Your task to perform on an android device: Do I have any events tomorrow? Image 0: 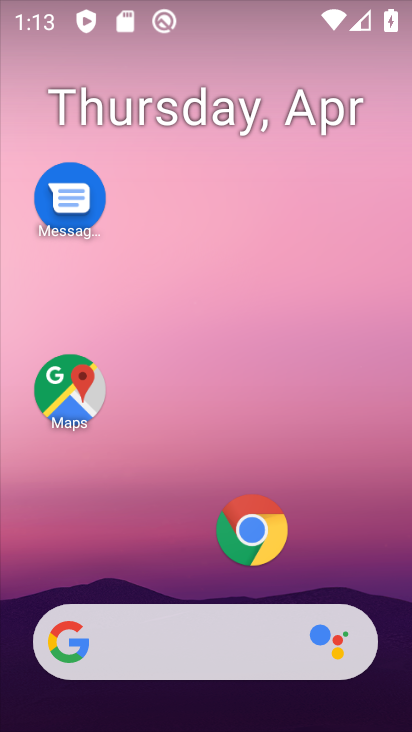
Step 0: drag from (178, 578) to (146, 16)
Your task to perform on an android device: Do I have any events tomorrow? Image 1: 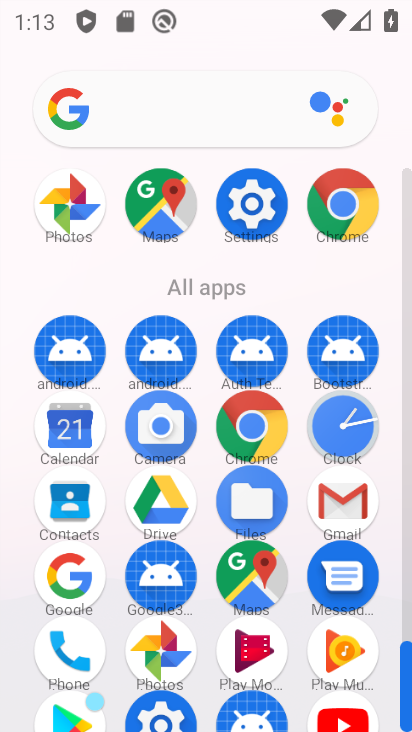
Step 1: click (88, 439)
Your task to perform on an android device: Do I have any events tomorrow? Image 2: 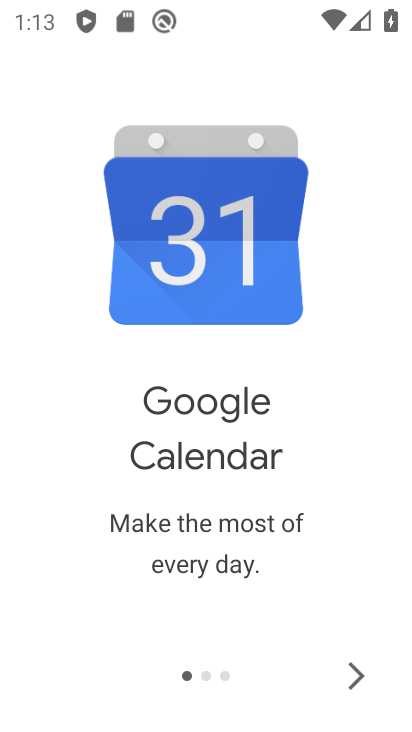
Step 2: click (356, 671)
Your task to perform on an android device: Do I have any events tomorrow? Image 3: 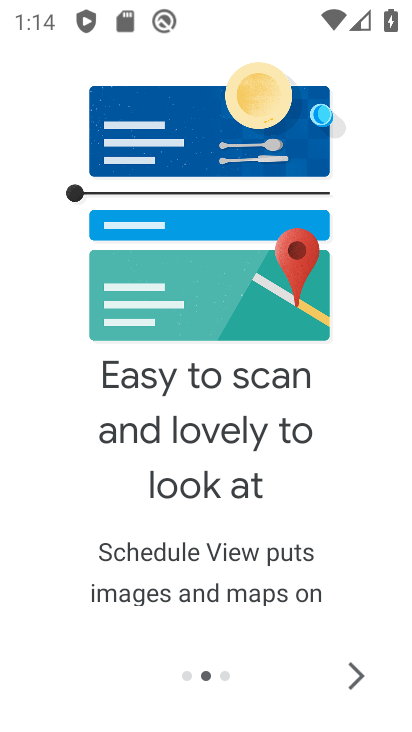
Step 3: click (356, 671)
Your task to perform on an android device: Do I have any events tomorrow? Image 4: 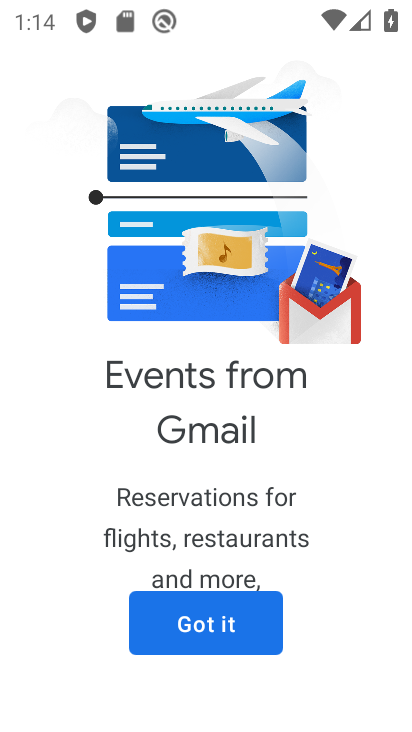
Step 4: click (244, 644)
Your task to perform on an android device: Do I have any events tomorrow? Image 5: 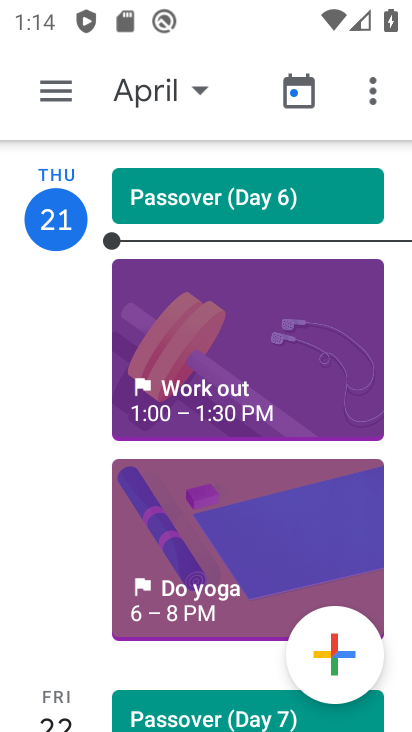
Step 5: click (41, 105)
Your task to perform on an android device: Do I have any events tomorrow? Image 6: 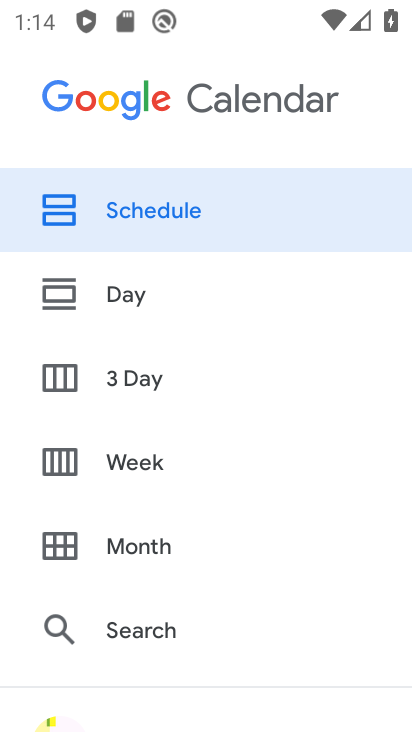
Step 6: click (120, 303)
Your task to perform on an android device: Do I have any events tomorrow? Image 7: 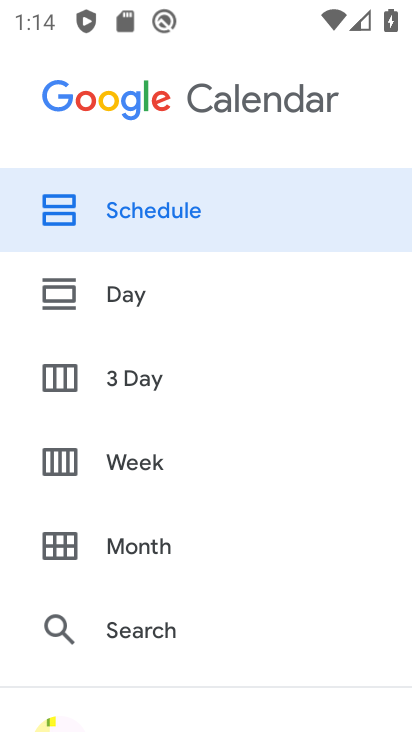
Step 7: click (146, 367)
Your task to perform on an android device: Do I have any events tomorrow? Image 8: 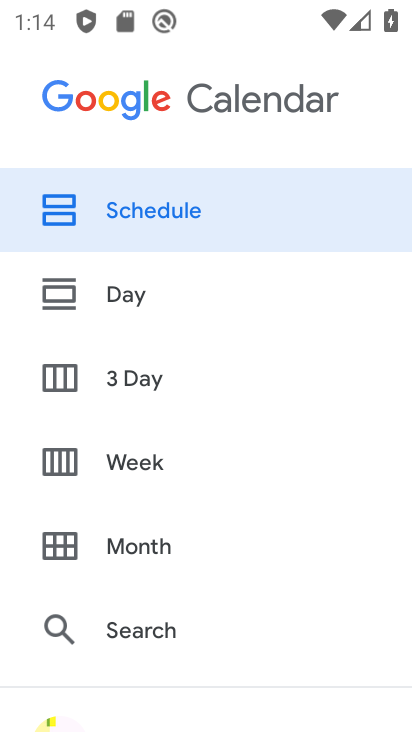
Step 8: click (153, 462)
Your task to perform on an android device: Do I have any events tomorrow? Image 9: 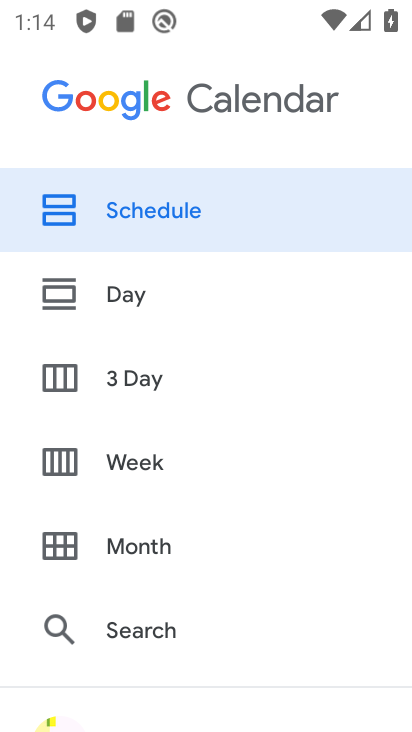
Step 9: click (157, 458)
Your task to perform on an android device: Do I have any events tomorrow? Image 10: 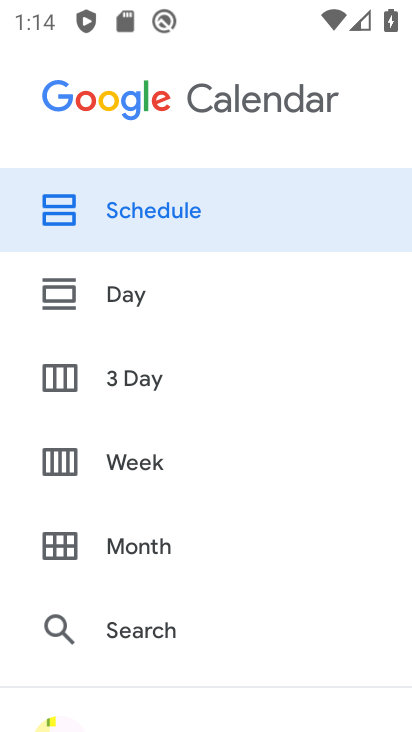
Step 10: click (157, 458)
Your task to perform on an android device: Do I have any events tomorrow? Image 11: 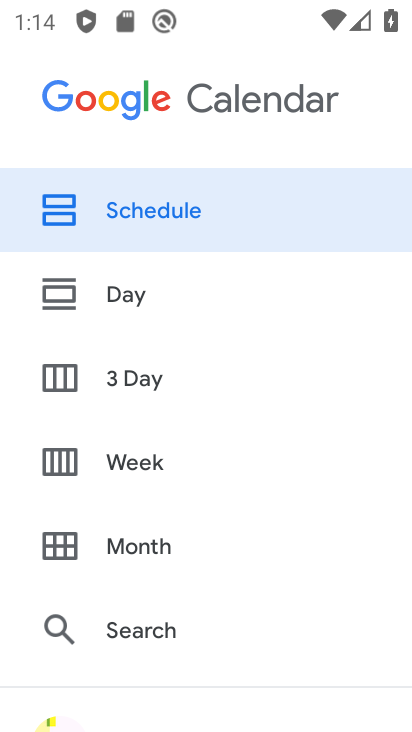
Step 11: click (48, 473)
Your task to perform on an android device: Do I have any events tomorrow? Image 12: 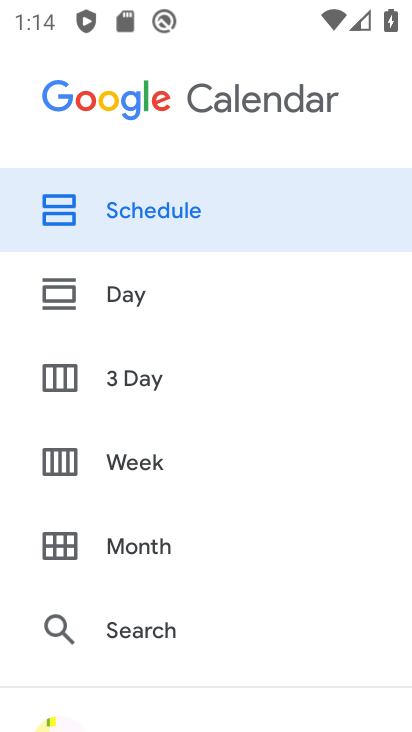
Step 12: click (48, 473)
Your task to perform on an android device: Do I have any events tomorrow? Image 13: 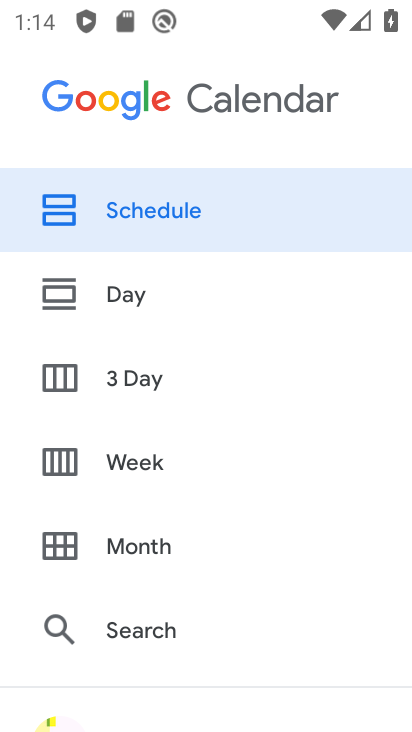
Step 13: click (48, 473)
Your task to perform on an android device: Do I have any events tomorrow? Image 14: 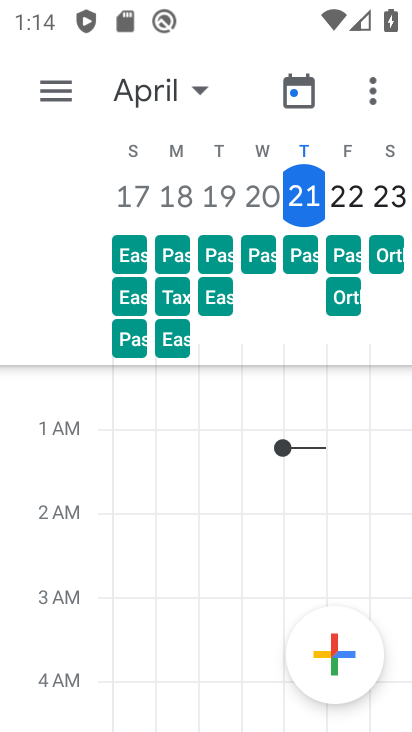
Step 14: click (346, 188)
Your task to perform on an android device: Do I have any events tomorrow? Image 15: 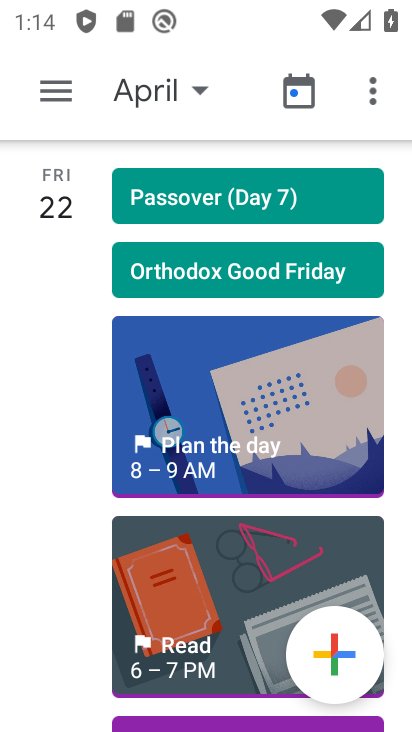
Step 15: task complete